Your task to perform on an android device: open chrome privacy settings Image 0: 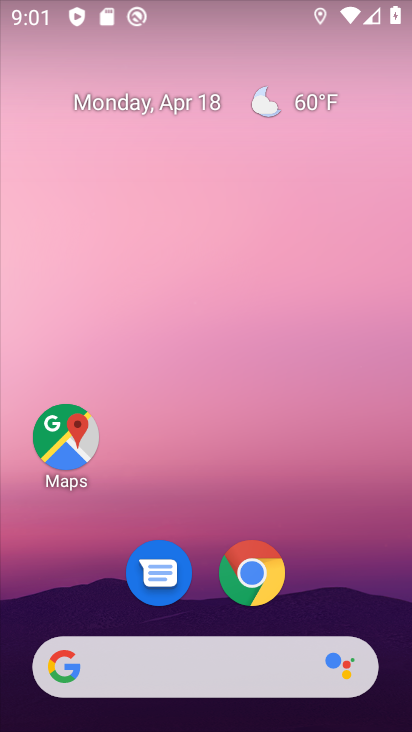
Step 0: click (261, 566)
Your task to perform on an android device: open chrome privacy settings Image 1: 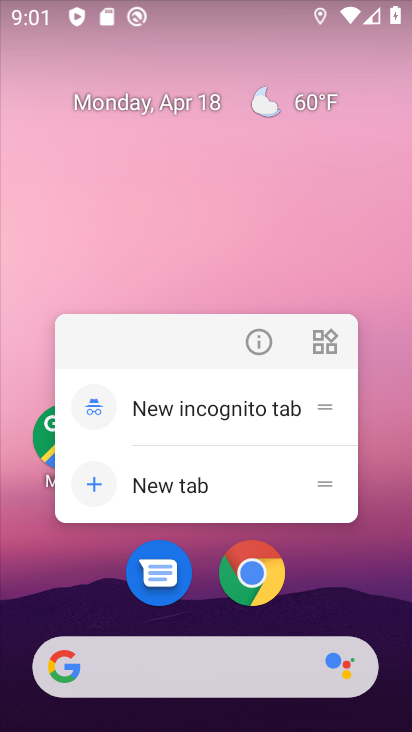
Step 1: click (260, 566)
Your task to perform on an android device: open chrome privacy settings Image 2: 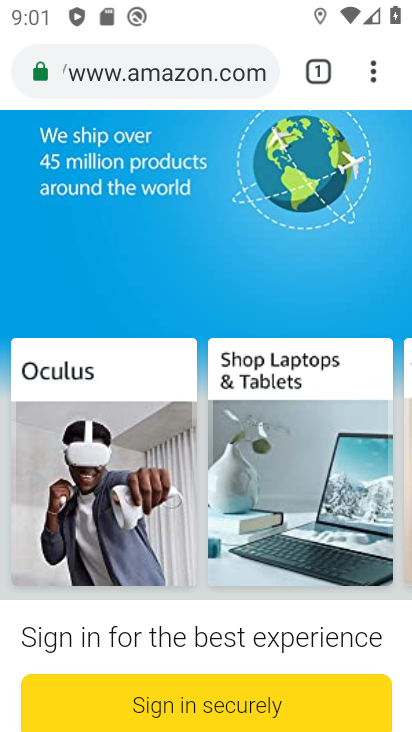
Step 2: drag from (330, 127) to (287, 421)
Your task to perform on an android device: open chrome privacy settings Image 3: 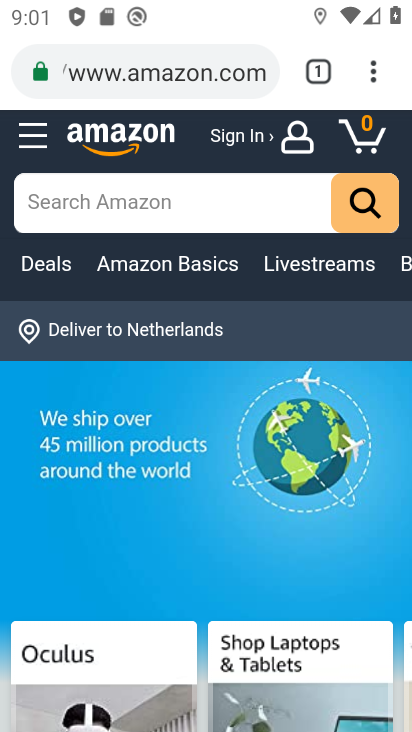
Step 3: click (376, 72)
Your task to perform on an android device: open chrome privacy settings Image 4: 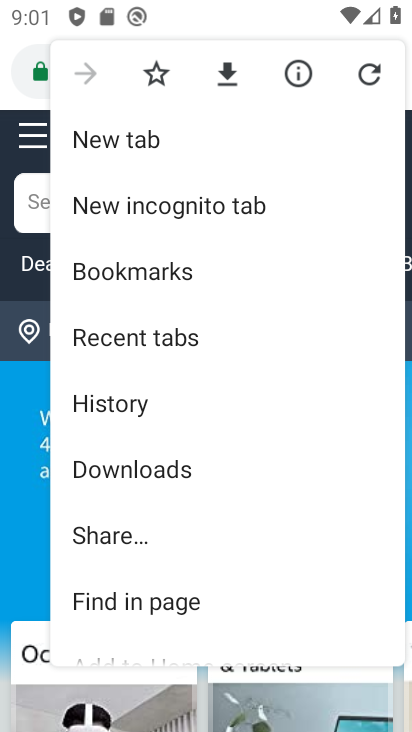
Step 4: drag from (151, 603) to (193, 204)
Your task to perform on an android device: open chrome privacy settings Image 5: 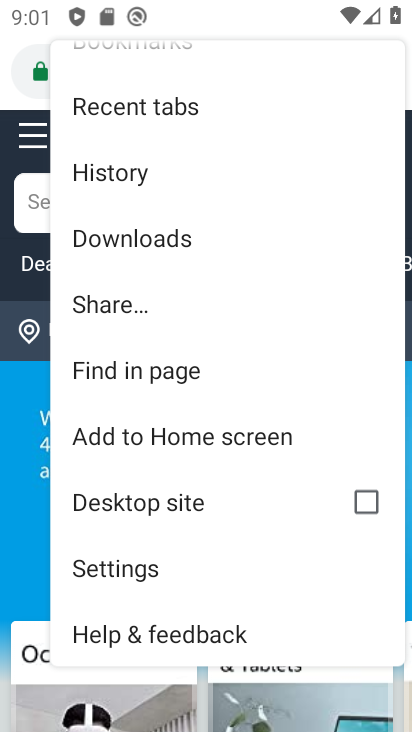
Step 5: click (107, 571)
Your task to perform on an android device: open chrome privacy settings Image 6: 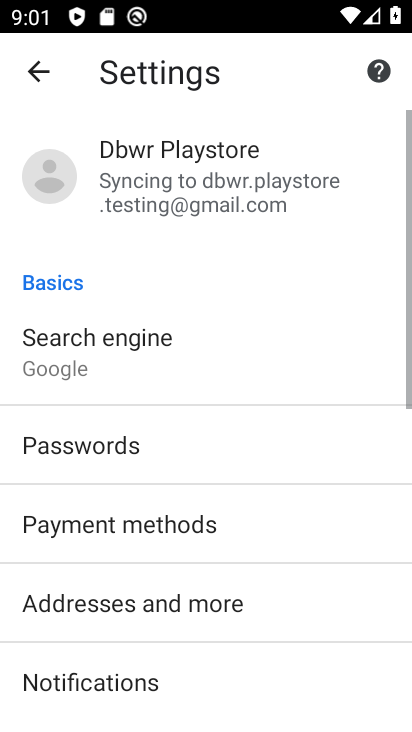
Step 6: drag from (140, 654) to (162, 162)
Your task to perform on an android device: open chrome privacy settings Image 7: 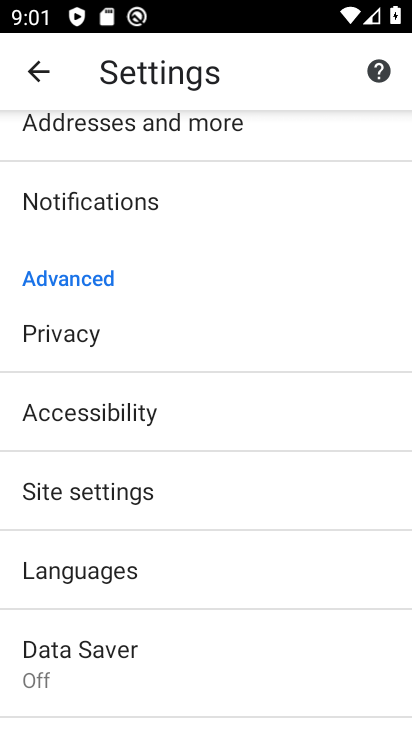
Step 7: click (85, 332)
Your task to perform on an android device: open chrome privacy settings Image 8: 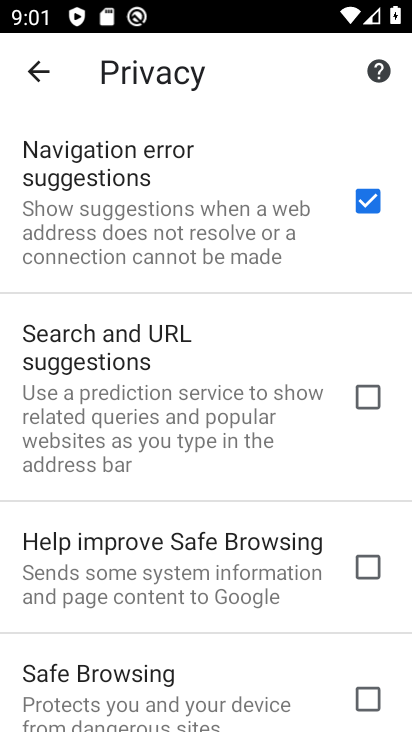
Step 8: task complete